Your task to perform on an android device: turn on the 24-hour format for clock Image 0: 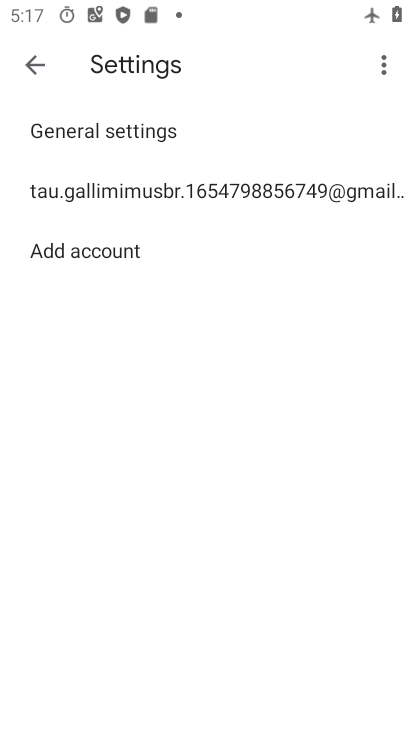
Step 0: press home button
Your task to perform on an android device: turn on the 24-hour format for clock Image 1: 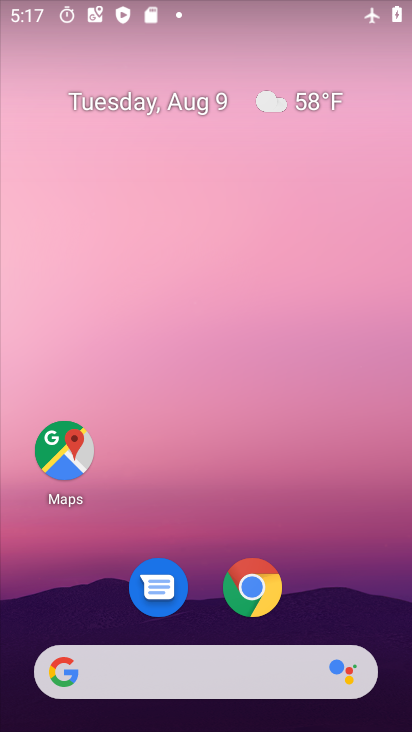
Step 1: drag from (194, 662) to (233, 125)
Your task to perform on an android device: turn on the 24-hour format for clock Image 2: 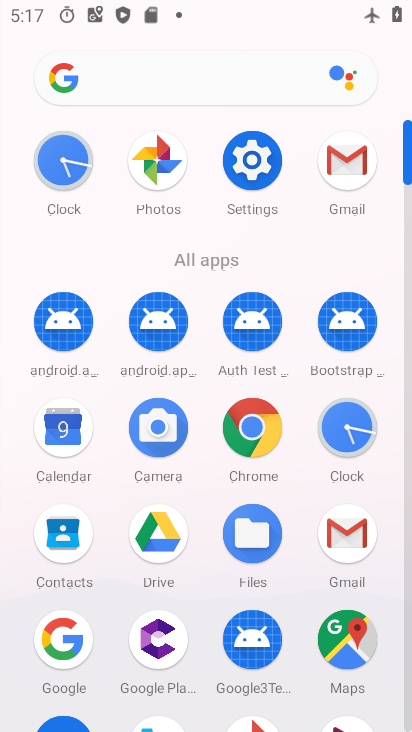
Step 2: click (264, 153)
Your task to perform on an android device: turn on the 24-hour format for clock Image 3: 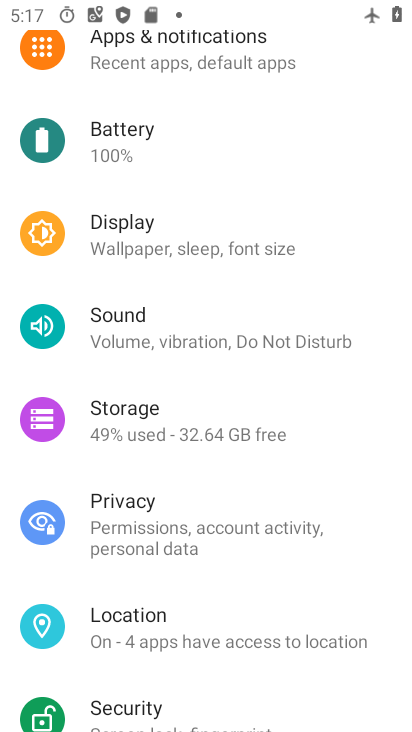
Step 3: drag from (187, 609) to (232, 22)
Your task to perform on an android device: turn on the 24-hour format for clock Image 4: 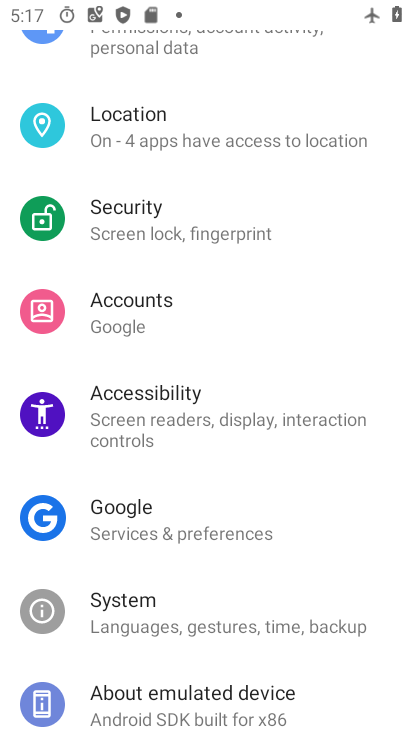
Step 4: click (254, 599)
Your task to perform on an android device: turn on the 24-hour format for clock Image 5: 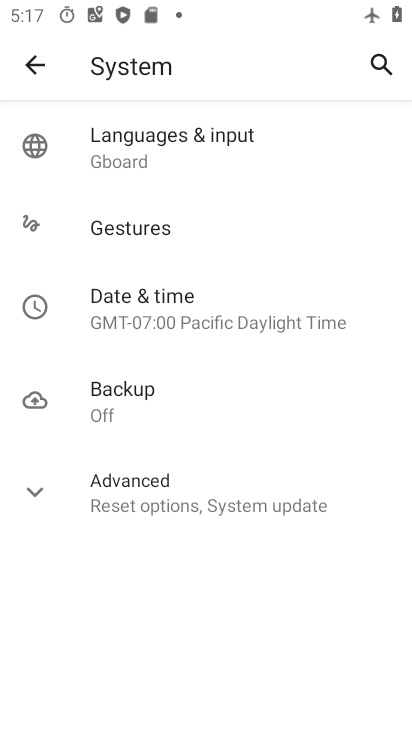
Step 5: click (222, 303)
Your task to perform on an android device: turn on the 24-hour format for clock Image 6: 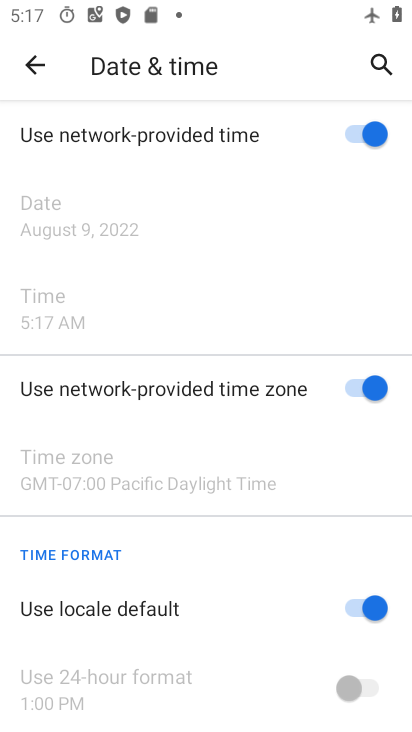
Step 6: drag from (143, 593) to (206, 257)
Your task to perform on an android device: turn on the 24-hour format for clock Image 7: 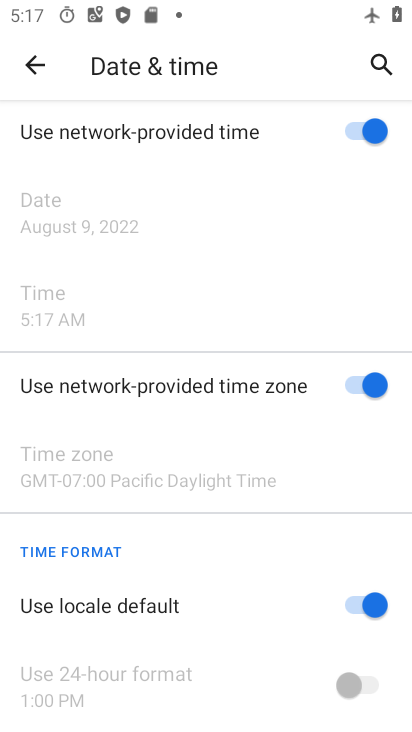
Step 7: click (356, 599)
Your task to perform on an android device: turn on the 24-hour format for clock Image 8: 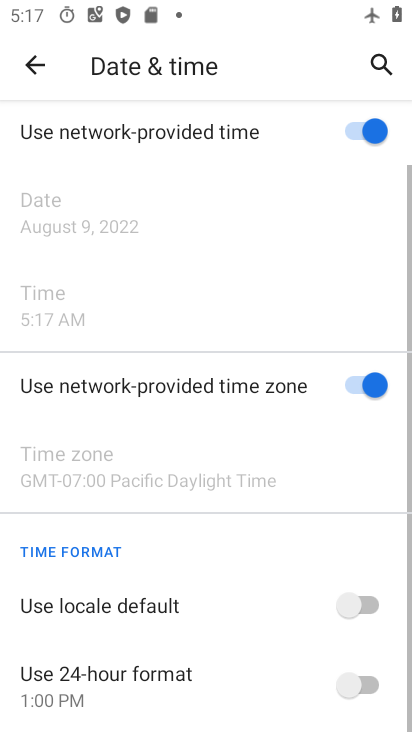
Step 8: click (365, 690)
Your task to perform on an android device: turn on the 24-hour format for clock Image 9: 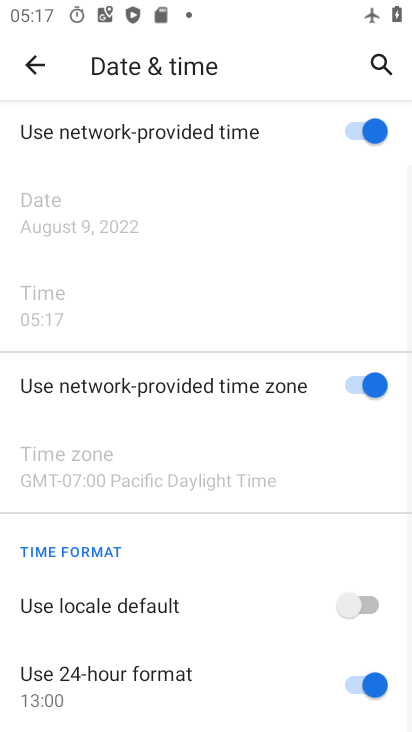
Step 9: task complete